Your task to perform on an android device: toggle pop-ups in chrome Image 0: 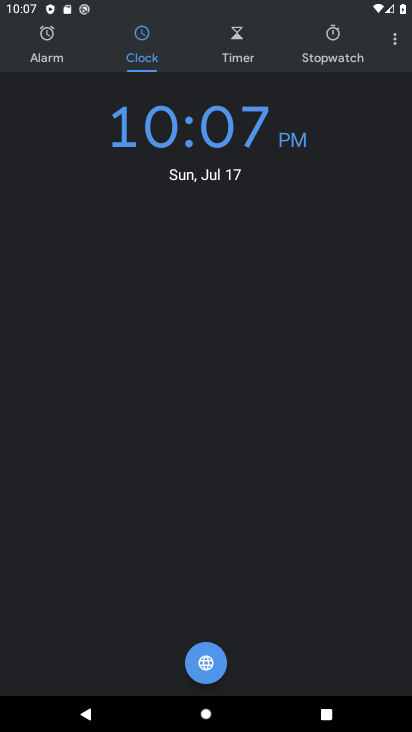
Step 0: press home button
Your task to perform on an android device: toggle pop-ups in chrome Image 1: 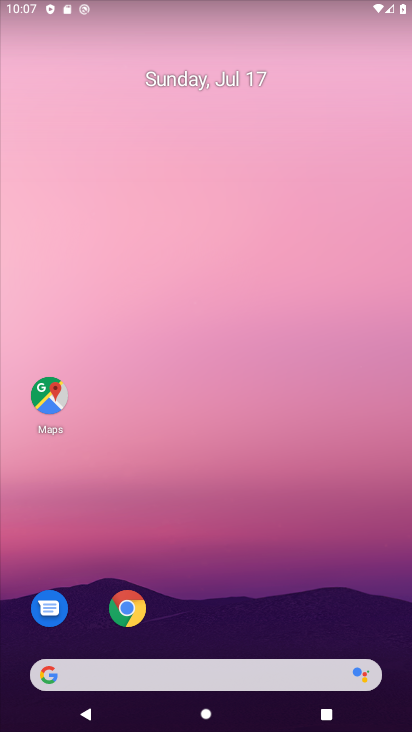
Step 1: click (129, 607)
Your task to perform on an android device: toggle pop-ups in chrome Image 2: 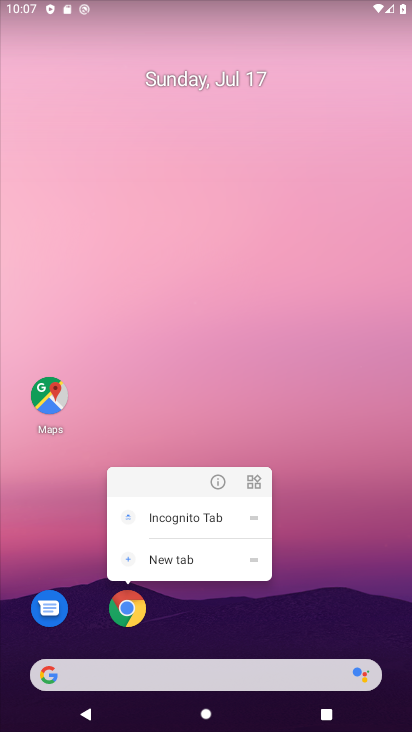
Step 2: click (124, 604)
Your task to perform on an android device: toggle pop-ups in chrome Image 3: 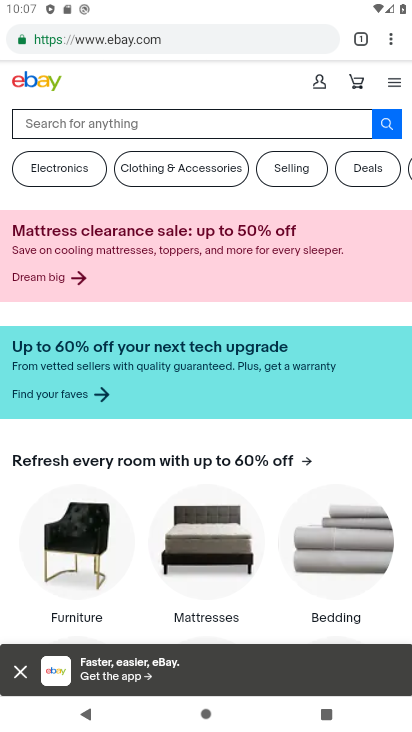
Step 3: click (390, 38)
Your task to perform on an android device: toggle pop-ups in chrome Image 4: 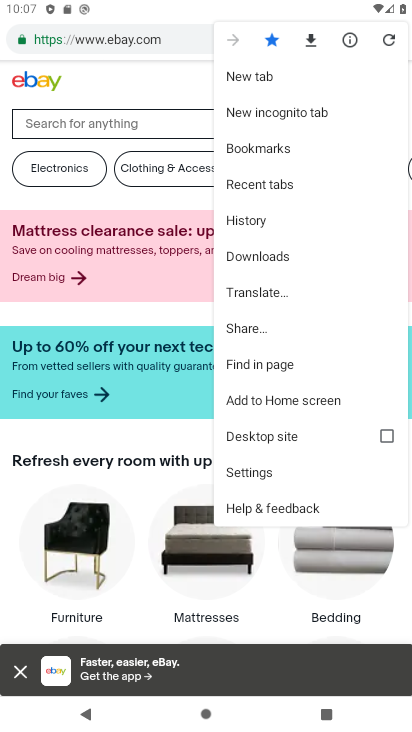
Step 4: click (282, 468)
Your task to perform on an android device: toggle pop-ups in chrome Image 5: 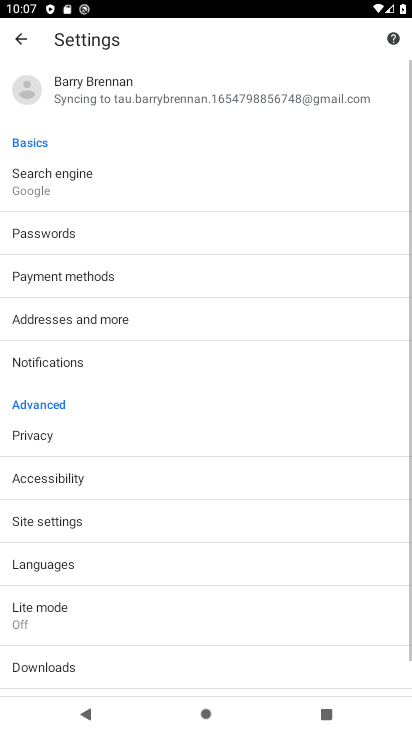
Step 5: click (54, 518)
Your task to perform on an android device: toggle pop-ups in chrome Image 6: 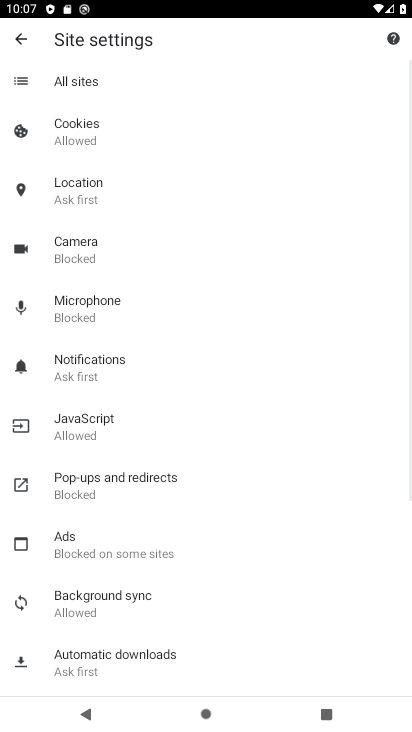
Step 6: click (110, 476)
Your task to perform on an android device: toggle pop-ups in chrome Image 7: 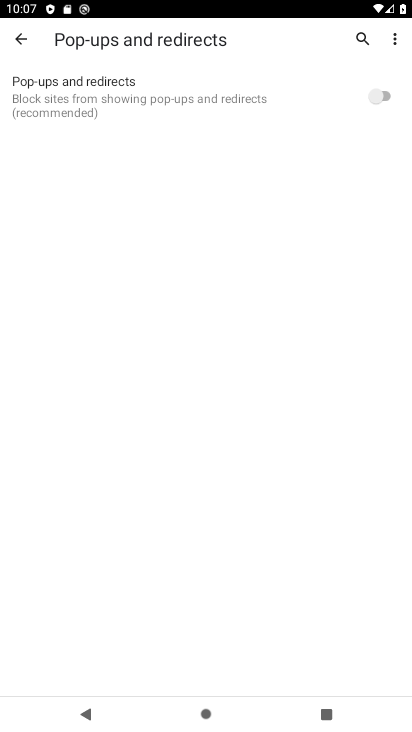
Step 7: click (381, 94)
Your task to perform on an android device: toggle pop-ups in chrome Image 8: 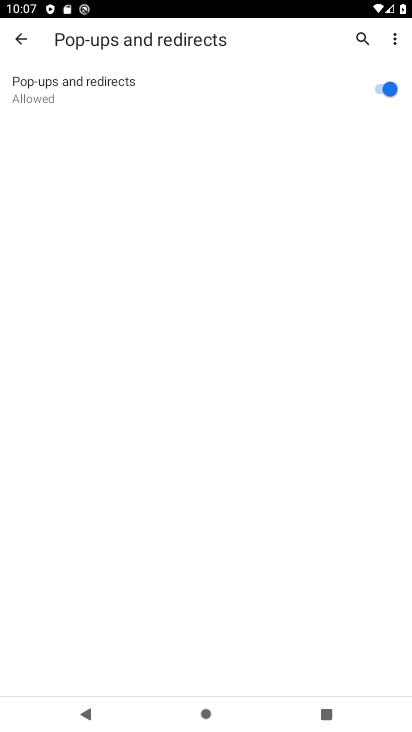
Step 8: task complete